Your task to perform on an android device: Go to ESPN.com Image 0: 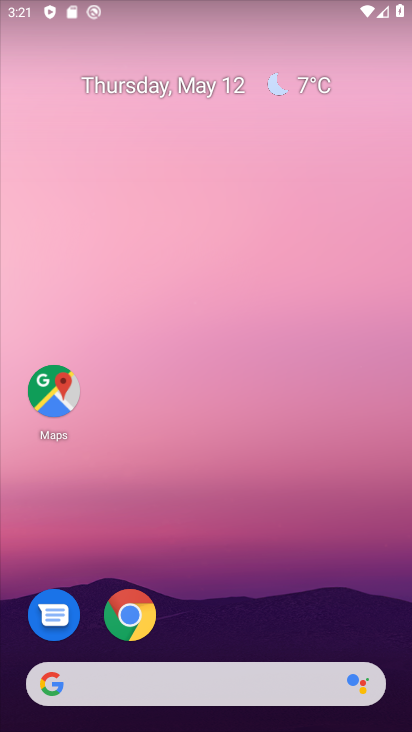
Step 0: click (133, 620)
Your task to perform on an android device: Go to ESPN.com Image 1: 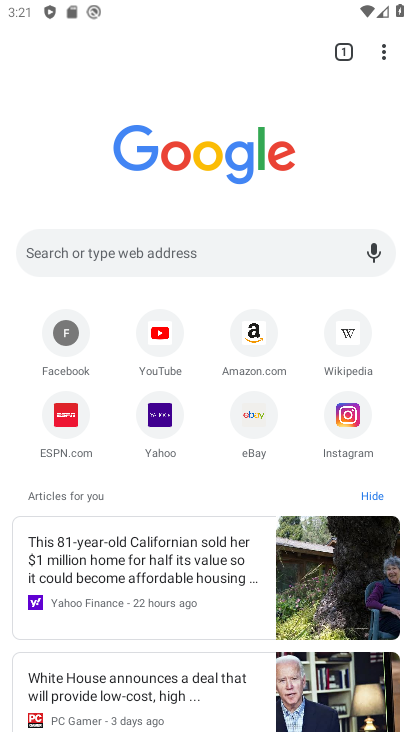
Step 1: click (66, 416)
Your task to perform on an android device: Go to ESPN.com Image 2: 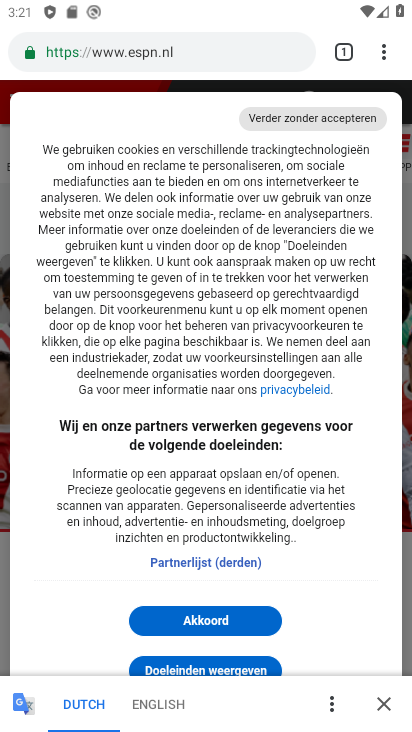
Step 2: task complete